Your task to perform on an android device: Open Amazon Image 0: 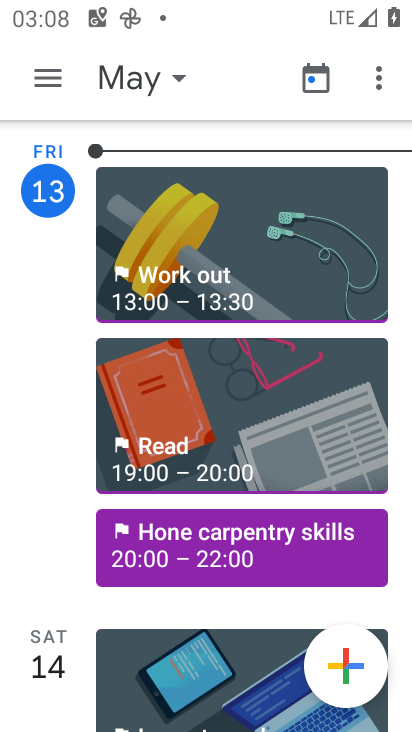
Step 0: press home button
Your task to perform on an android device: Open Amazon Image 1: 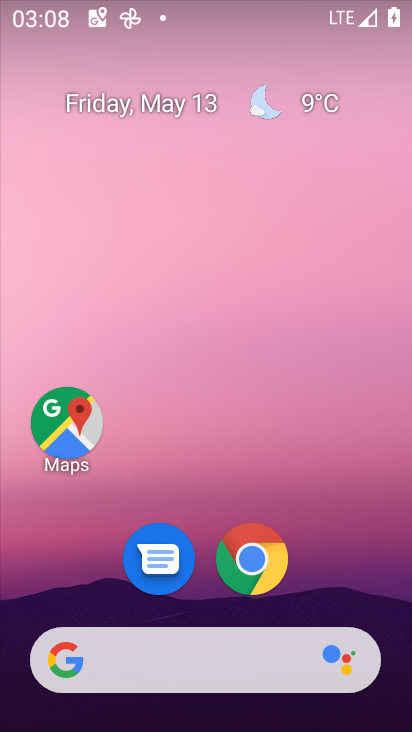
Step 1: click (257, 554)
Your task to perform on an android device: Open Amazon Image 2: 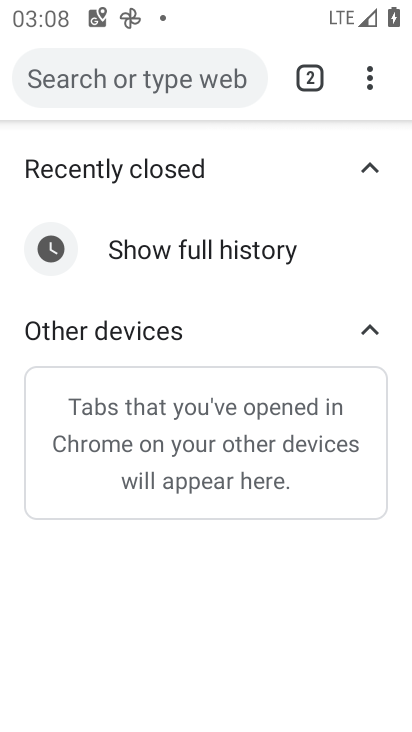
Step 2: click (248, 81)
Your task to perform on an android device: Open Amazon Image 3: 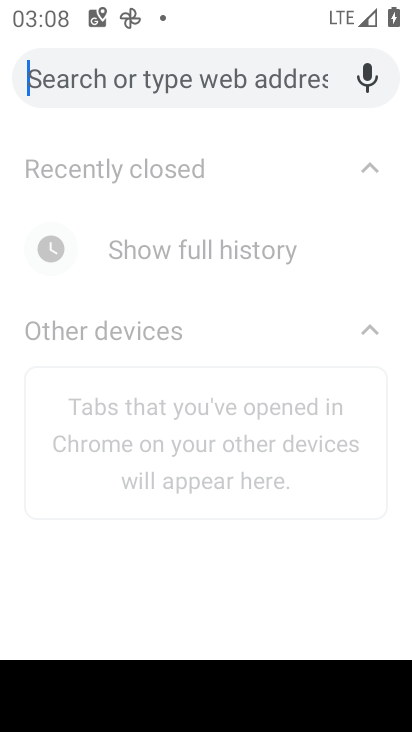
Step 3: click (379, 308)
Your task to perform on an android device: Open Amazon Image 4: 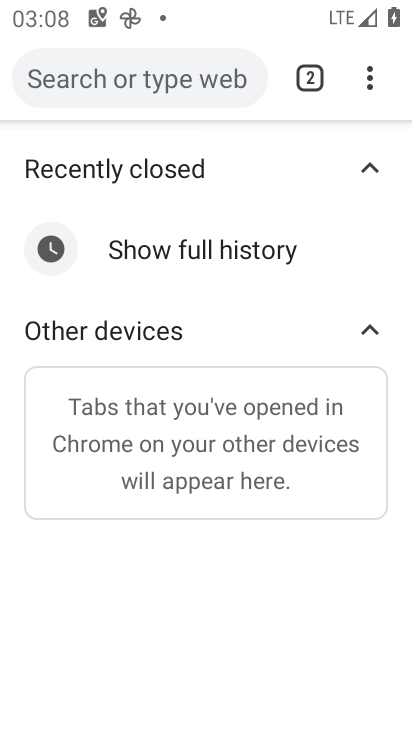
Step 4: click (320, 316)
Your task to perform on an android device: Open Amazon Image 5: 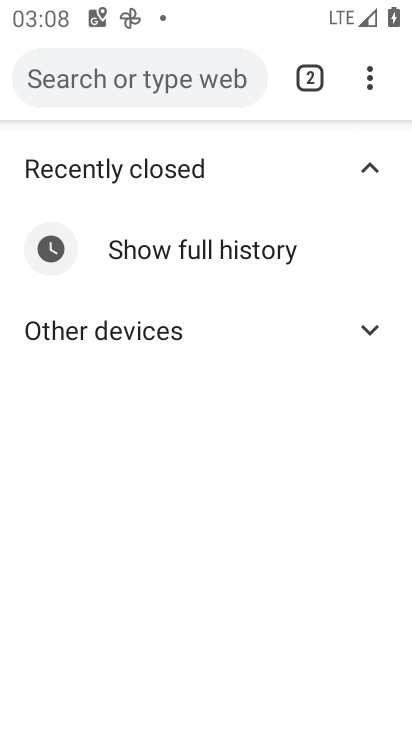
Step 5: click (116, 84)
Your task to perform on an android device: Open Amazon Image 6: 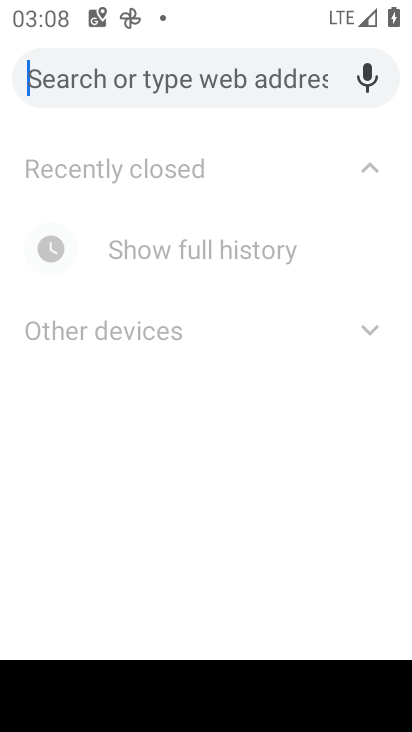
Step 6: type "Amazon"
Your task to perform on an android device: Open Amazon Image 7: 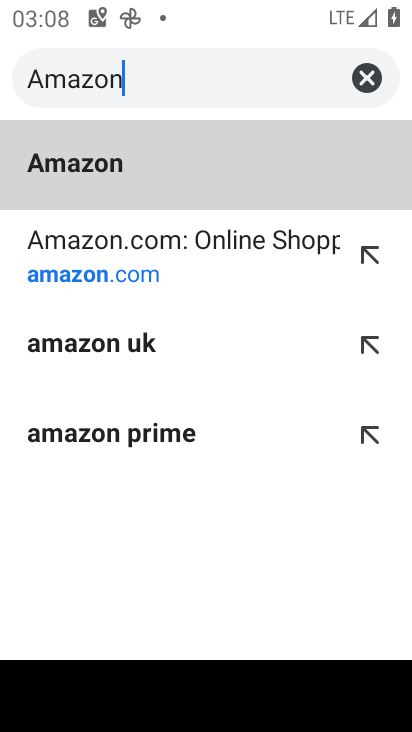
Step 7: click (145, 254)
Your task to perform on an android device: Open Amazon Image 8: 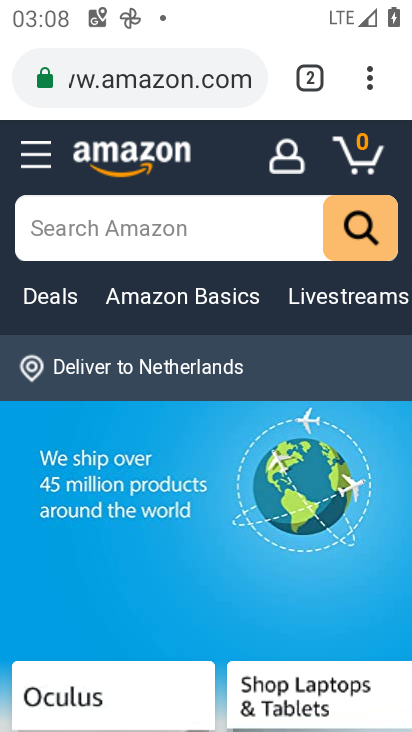
Step 8: task complete